Your task to perform on an android device: change notification settings in the gmail app Image 0: 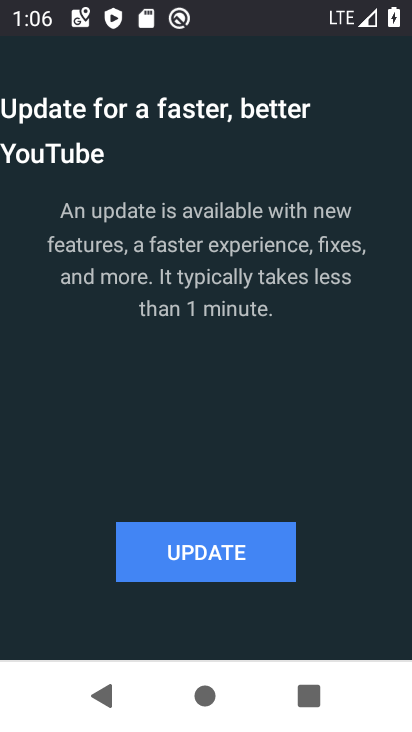
Step 0: press home button
Your task to perform on an android device: change notification settings in the gmail app Image 1: 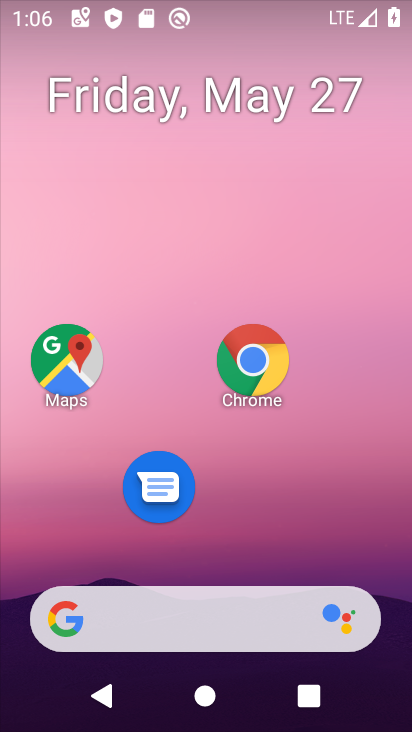
Step 1: drag from (257, 526) to (262, 86)
Your task to perform on an android device: change notification settings in the gmail app Image 2: 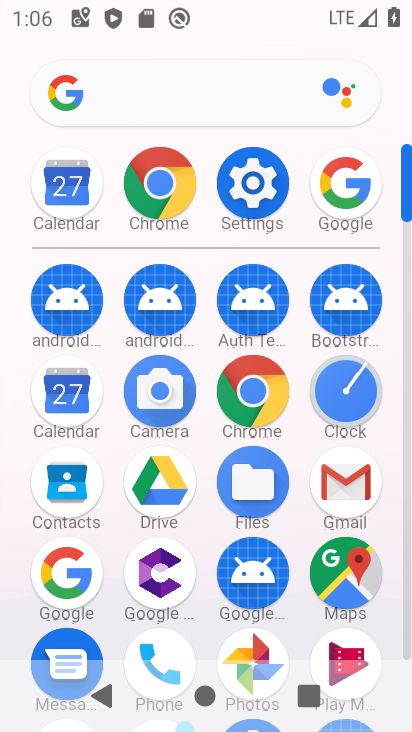
Step 2: click (343, 482)
Your task to perform on an android device: change notification settings in the gmail app Image 3: 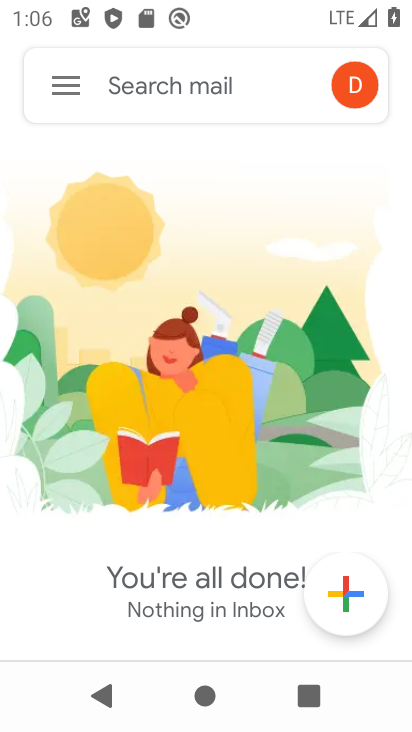
Step 3: click (54, 85)
Your task to perform on an android device: change notification settings in the gmail app Image 4: 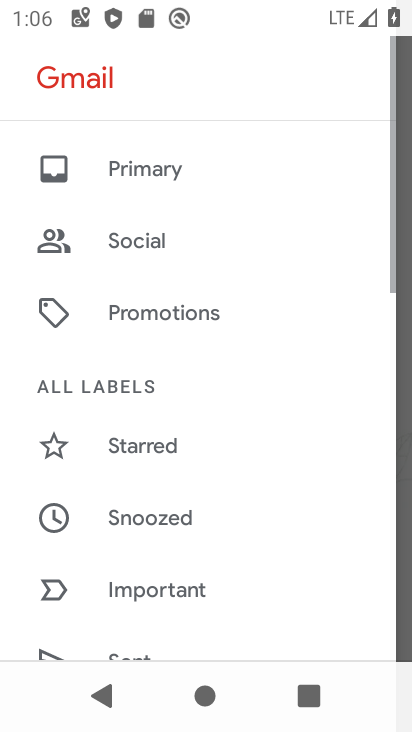
Step 4: drag from (220, 526) to (225, 140)
Your task to perform on an android device: change notification settings in the gmail app Image 5: 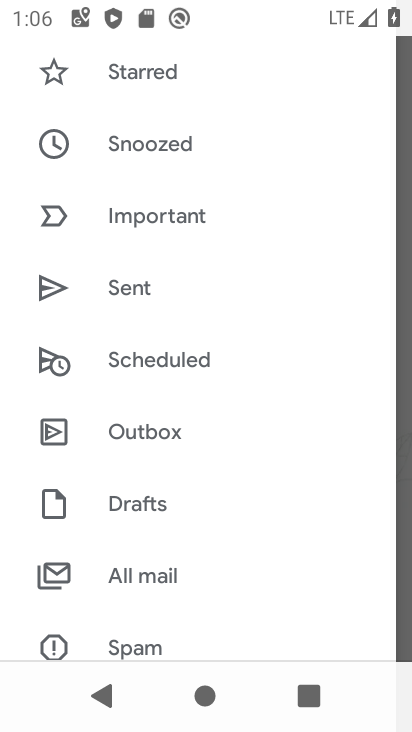
Step 5: drag from (224, 562) to (245, 109)
Your task to perform on an android device: change notification settings in the gmail app Image 6: 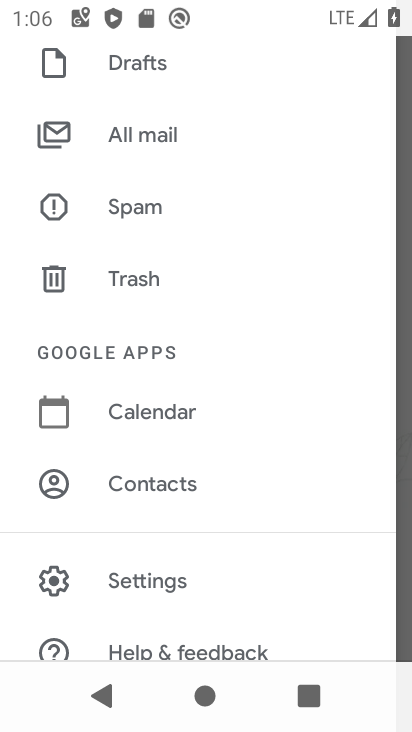
Step 6: click (143, 584)
Your task to perform on an android device: change notification settings in the gmail app Image 7: 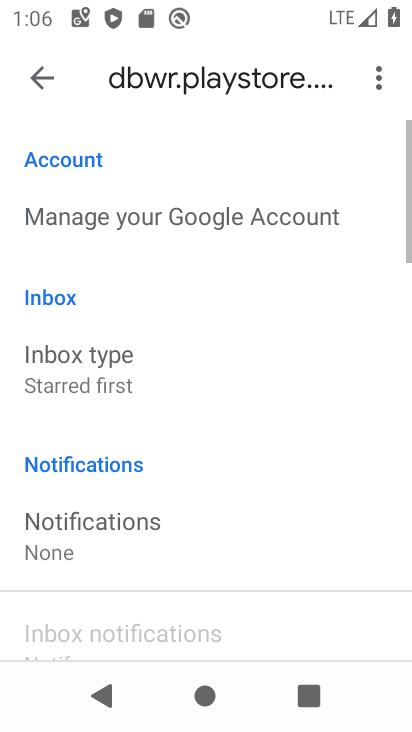
Step 7: drag from (195, 563) to (207, 325)
Your task to perform on an android device: change notification settings in the gmail app Image 8: 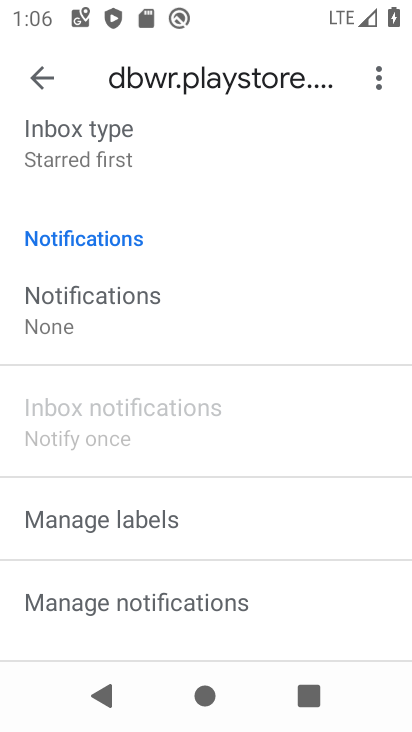
Step 8: click (84, 319)
Your task to perform on an android device: change notification settings in the gmail app Image 9: 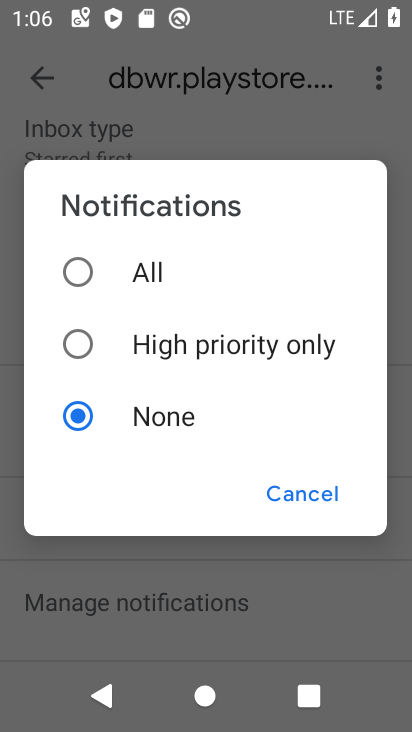
Step 9: click (80, 269)
Your task to perform on an android device: change notification settings in the gmail app Image 10: 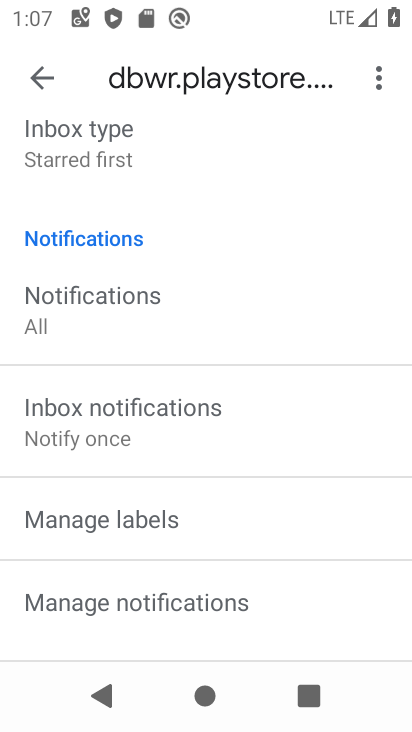
Step 10: task complete